Your task to perform on an android device: Open calendar and show me the second week of next month Image 0: 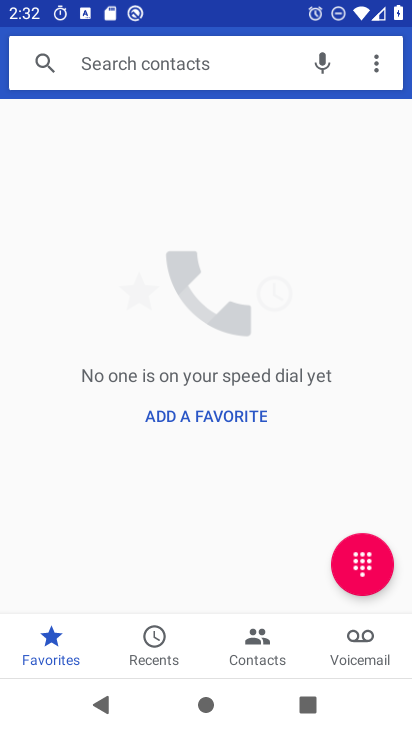
Step 0: press home button
Your task to perform on an android device: Open calendar and show me the second week of next month Image 1: 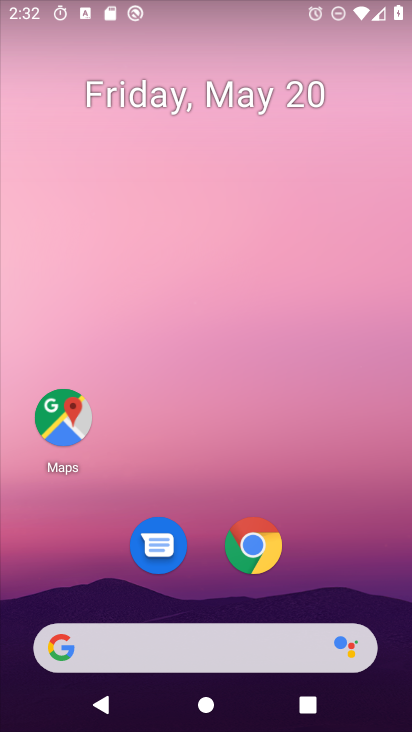
Step 1: drag from (224, 686) to (275, 42)
Your task to perform on an android device: Open calendar and show me the second week of next month Image 2: 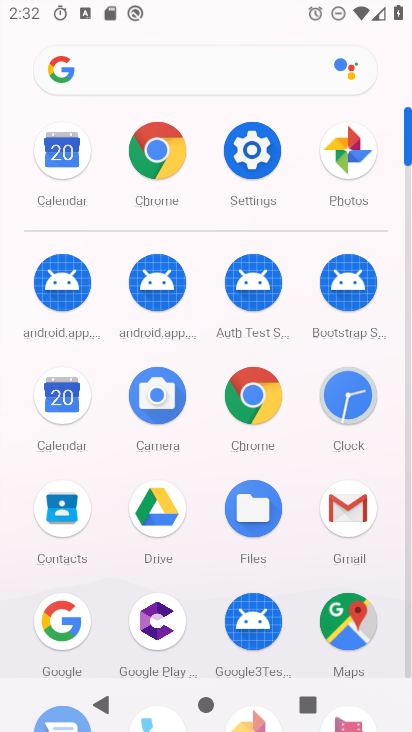
Step 2: click (62, 402)
Your task to perform on an android device: Open calendar and show me the second week of next month Image 3: 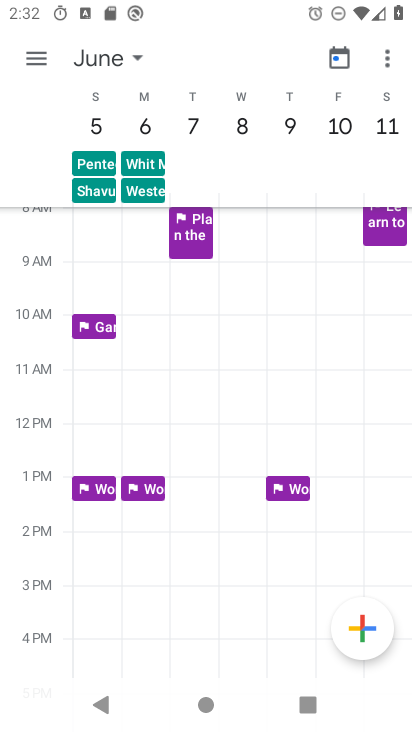
Step 3: click (137, 65)
Your task to perform on an android device: Open calendar and show me the second week of next month Image 4: 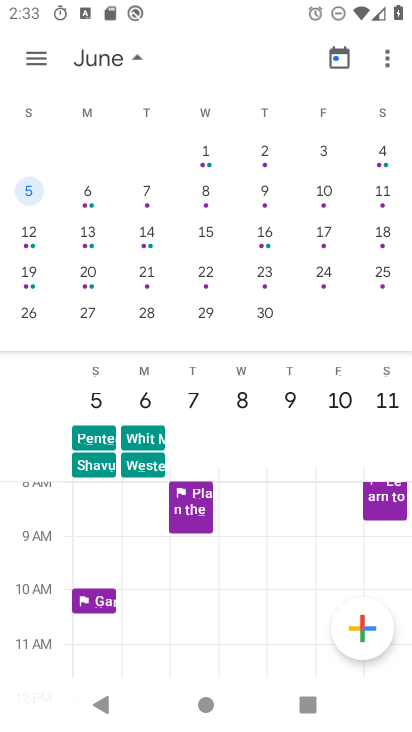
Step 4: click (375, 194)
Your task to perform on an android device: Open calendar and show me the second week of next month Image 5: 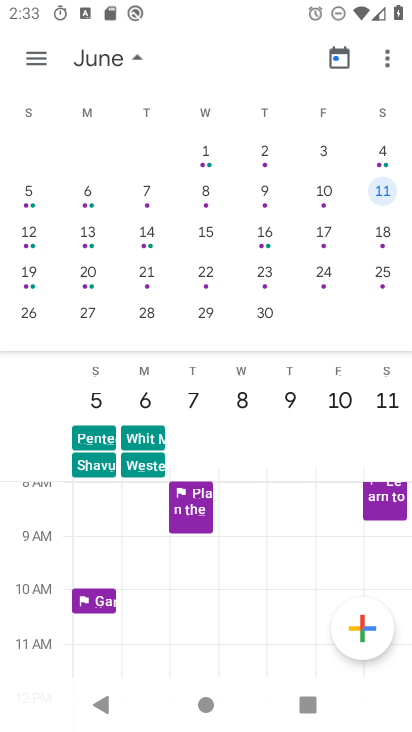
Step 5: click (33, 63)
Your task to perform on an android device: Open calendar and show me the second week of next month Image 6: 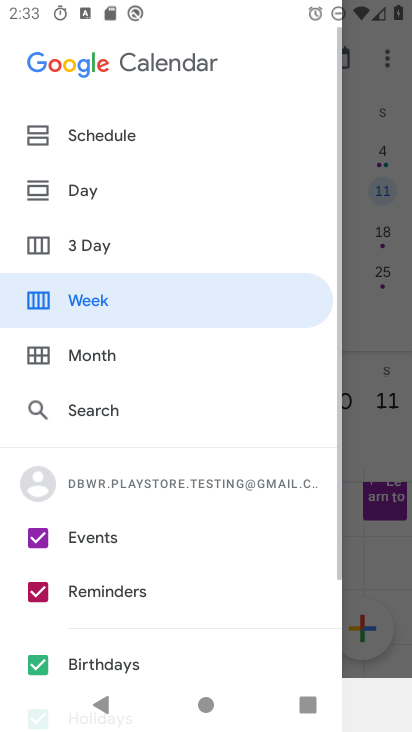
Step 6: click (88, 305)
Your task to perform on an android device: Open calendar and show me the second week of next month Image 7: 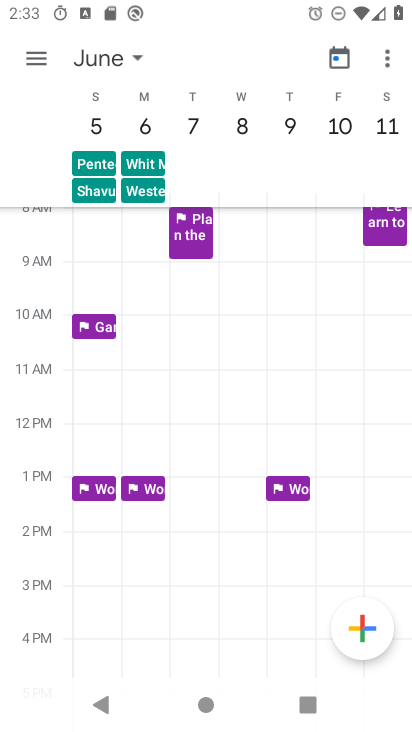
Step 7: task complete